Your task to perform on an android device: Search for Mexican restaurants on Maps Image 0: 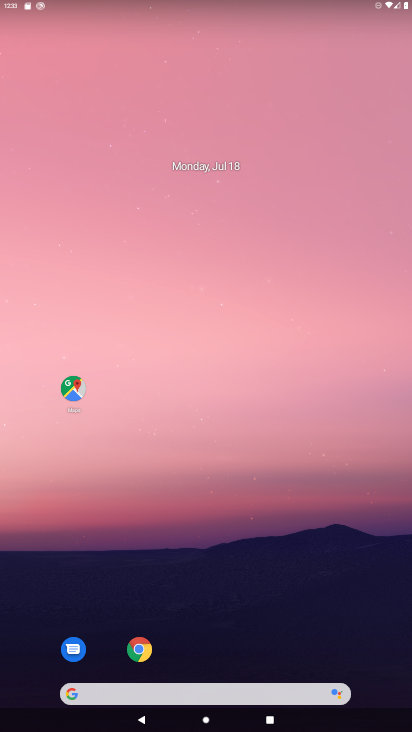
Step 0: click (75, 392)
Your task to perform on an android device: Search for Mexican restaurants on Maps Image 1: 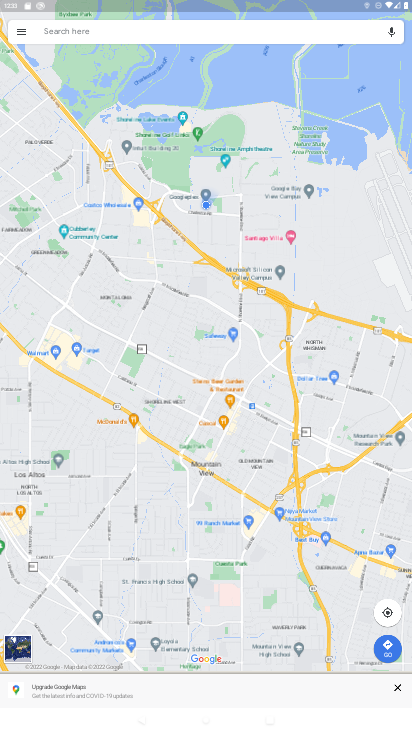
Step 1: click (243, 22)
Your task to perform on an android device: Search for Mexican restaurants on Maps Image 2: 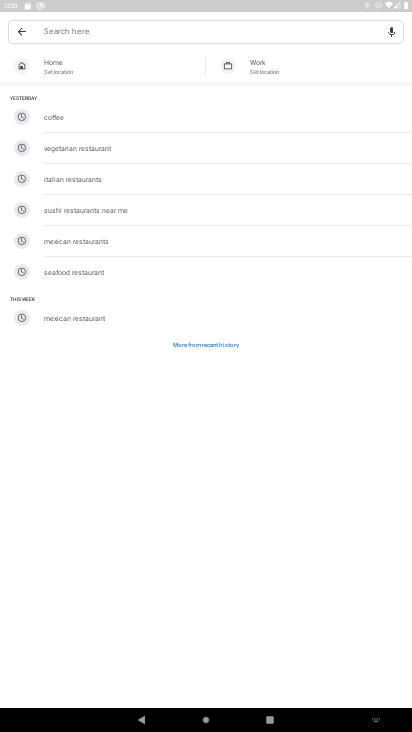
Step 2: type "mexican restaurant"
Your task to perform on an android device: Search for Mexican restaurants on Maps Image 3: 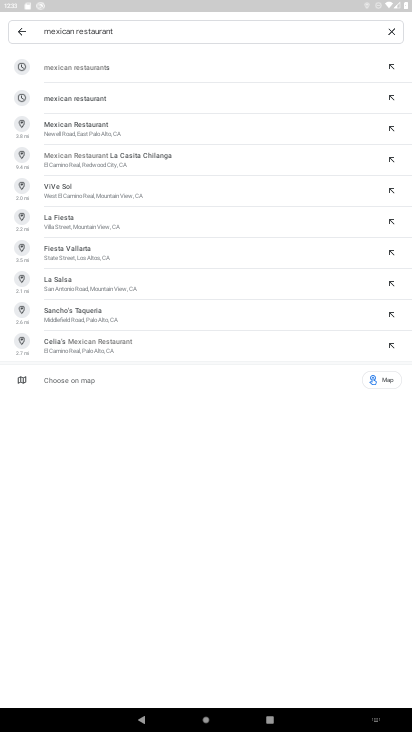
Step 3: click (109, 63)
Your task to perform on an android device: Search for Mexican restaurants on Maps Image 4: 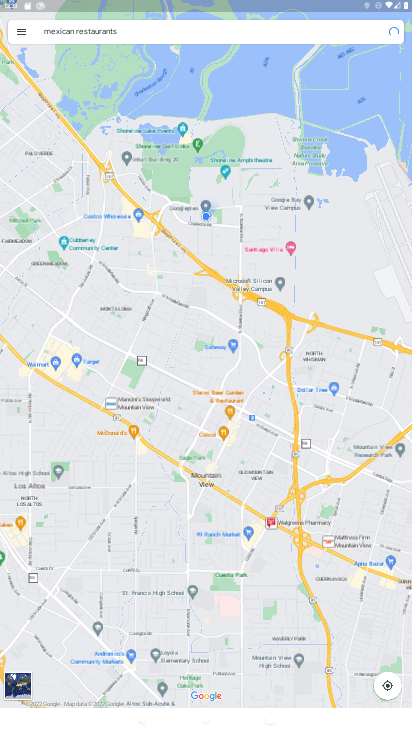
Step 4: task complete